Your task to perform on an android device: Open privacy settings Image 0: 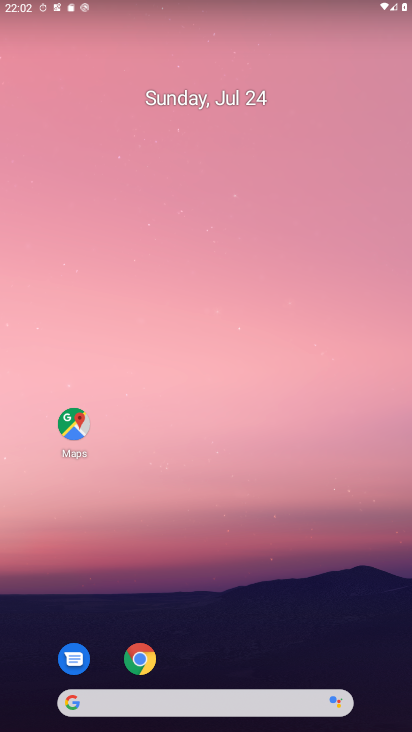
Step 0: drag from (199, 706) to (220, 267)
Your task to perform on an android device: Open privacy settings Image 1: 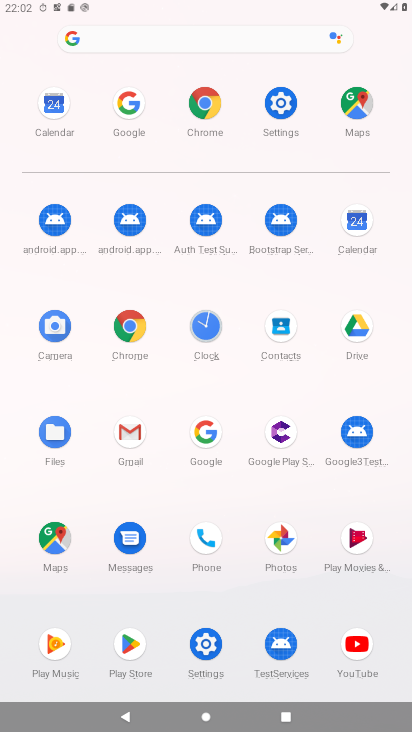
Step 1: click (279, 101)
Your task to perform on an android device: Open privacy settings Image 2: 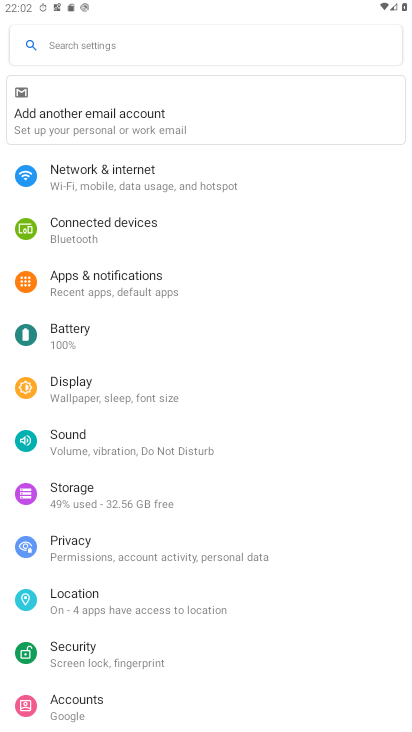
Step 2: click (80, 547)
Your task to perform on an android device: Open privacy settings Image 3: 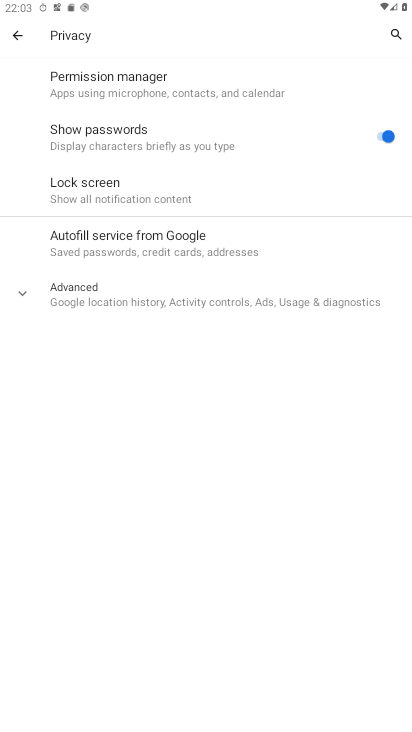
Step 3: task complete